Your task to perform on an android device: delete location history Image 0: 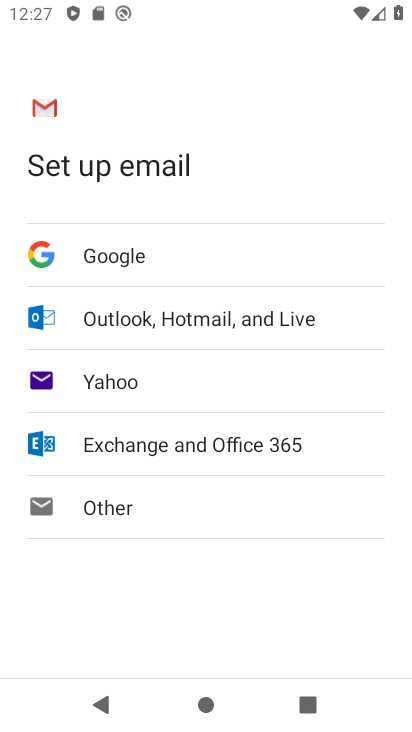
Step 0: press home button
Your task to perform on an android device: delete location history Image 1: 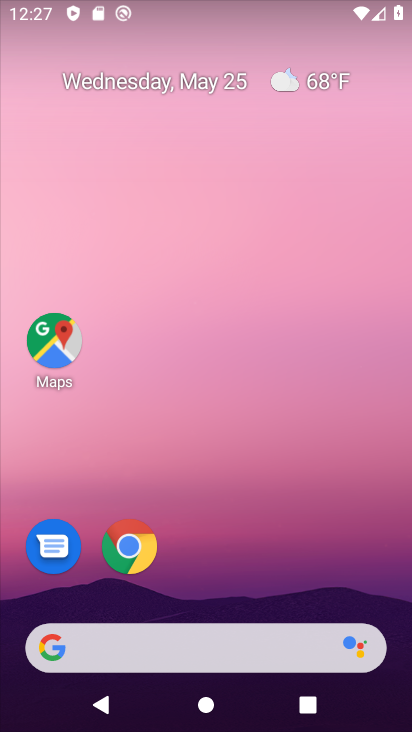
Step 1: drag from (358, 573) to (306, 71)
Your task to perform on an android device: delete location history Image 2: 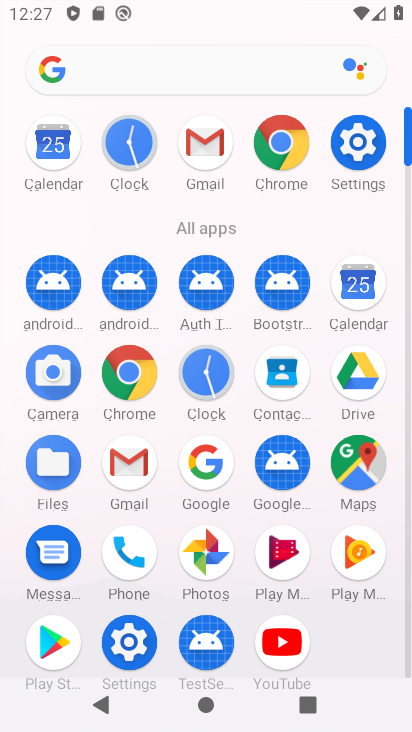
Step 2: click (365, 148)
Your task to perform on an android device: delete location history Image 3: 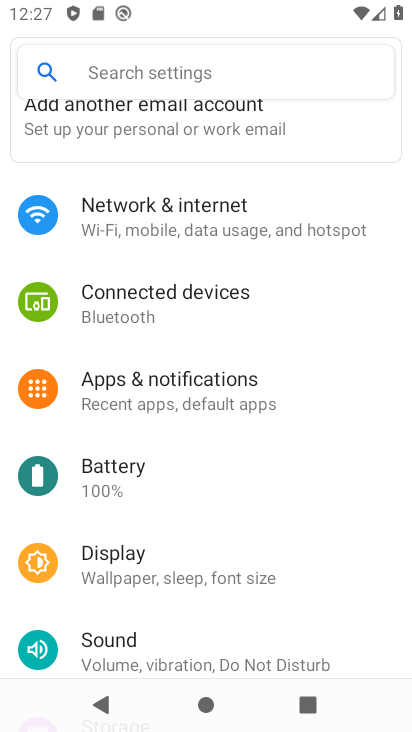
Step 3: drag from (235, 631) to (239, 411)
Your task to perform on an android device: delete location history Image 4: 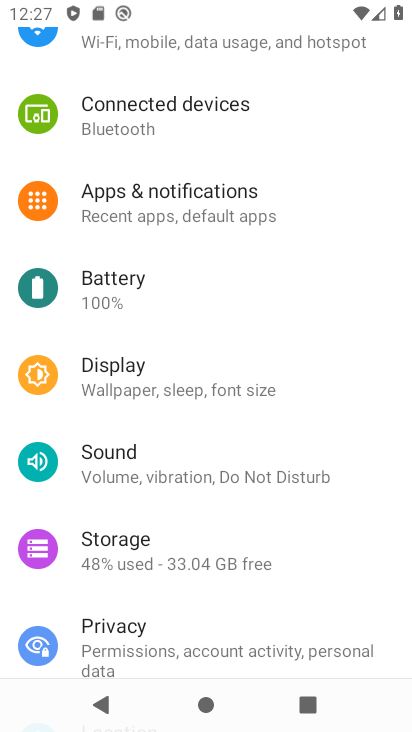
Step 4: drag from (215, 622) to (233, 202)
Your task to perform on an android device: delete location history Image 5: 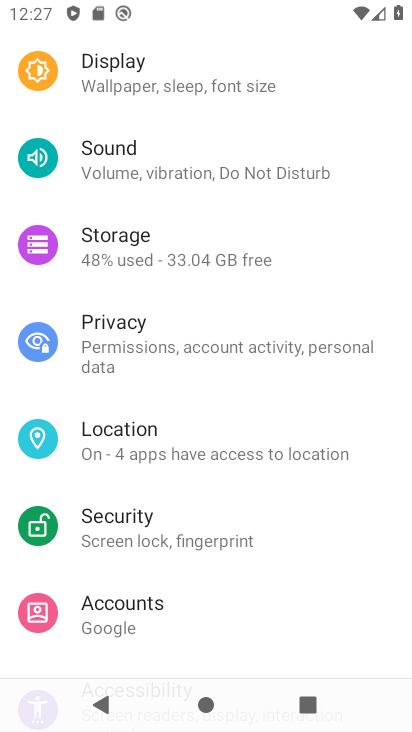
Step 5: click (186, 424)
Your task to perform on an android device: delete location history Image 6: 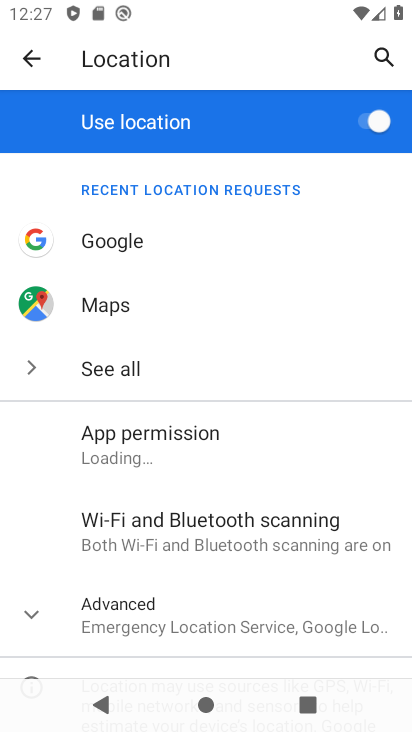
Step 6: drag from (162, 565) to (187, 225)
Your task to perform on an android device: delete location history Image 7: 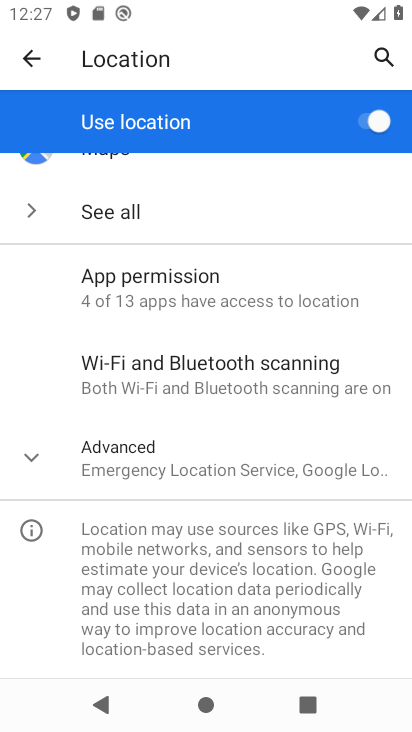
Step 7: click (201, 480)
Your task to perform on an android device: delete location history Image 8: 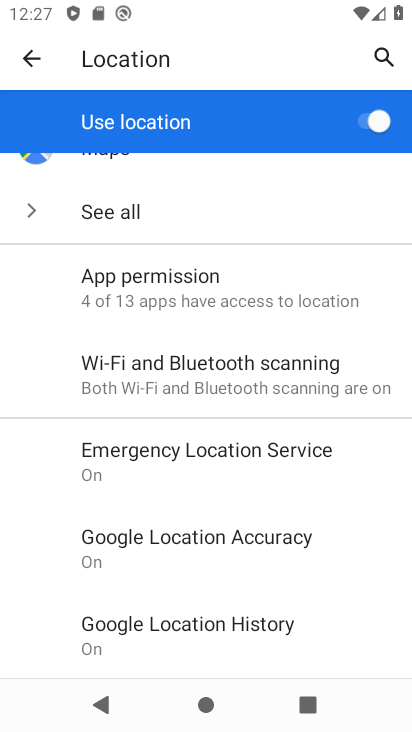
Step 8: click (215, 618)
Your task to perform on an android device: delete location history Image 9: 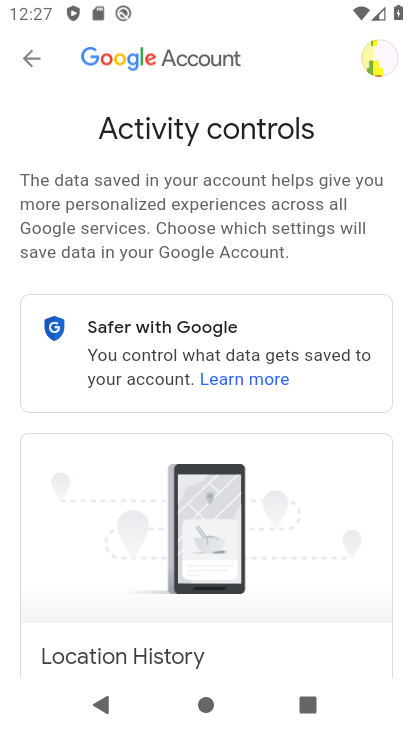
Step 9: drag from (277, 599) to (245, 239)
Your task to perform on an android device: delete location history Image 10: 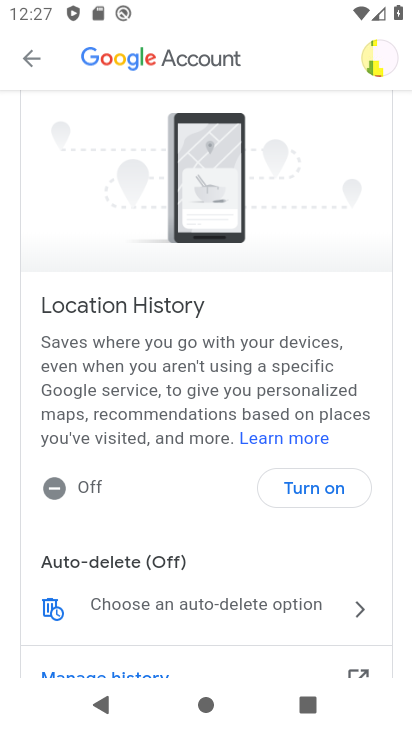
Step 10: click (149, 624)
Your task to perform on an android device: delete location history Image 11: 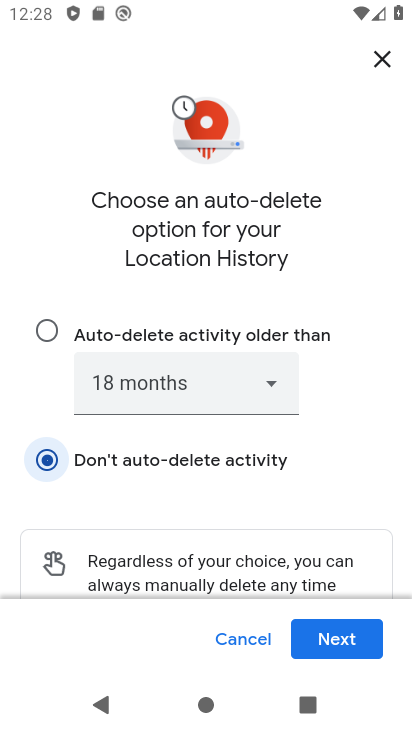
Step 11: click (344, 652)
Your task to perform on an android device: delete location history Image 12: 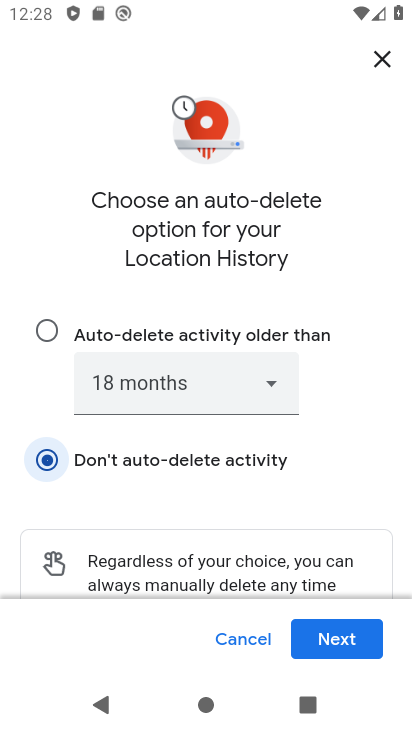
Step 12: click (344, 652)
Your task to perform on an android device: delete location history Image 13: 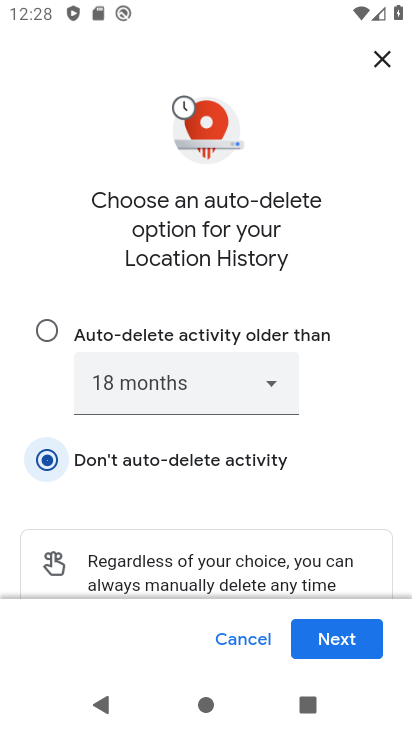
Step 13: click (344, 652)
Your task to perform on an android device: delete location history Image 14: 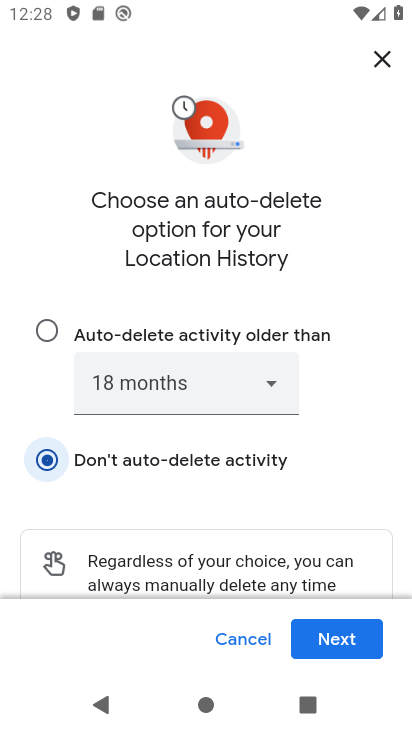
Step 14: click (344, 652)
Your task to perform on an android device: delete location history Image 15: 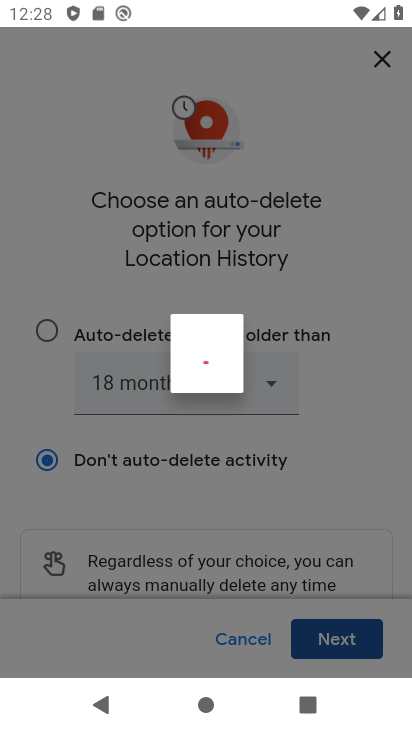
Step 15: click (344, 652)
Your task to perform on an android device: delete location history Image 16: 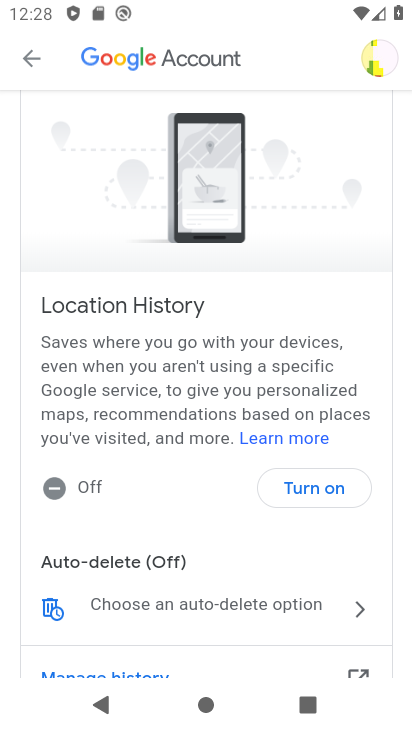
Step 16: click (344, 652)
Your task to perform on an android device: delete location history Image 17: 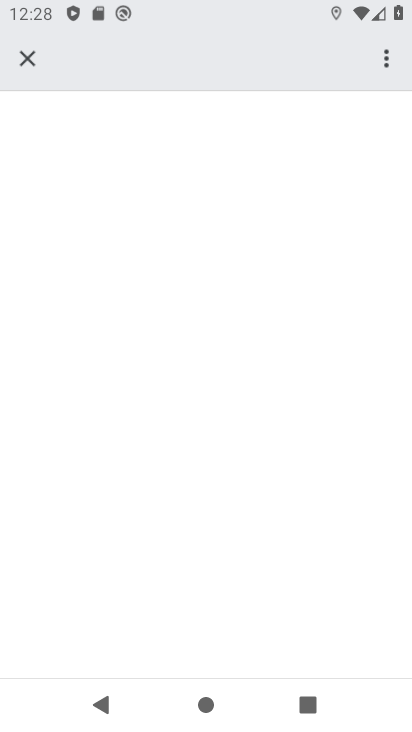
Step 17: task complete